Your task to perform on an android device: turn on translation in the chrome app Image 0: 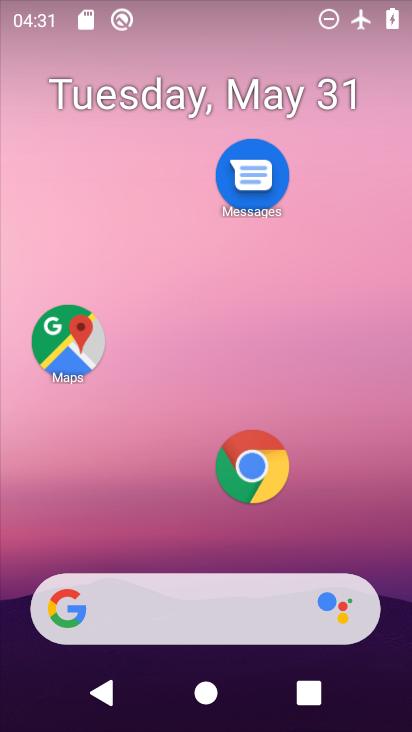
Step 0: click (248, 464)
Your task to perform on an android device: turn on translation in the chrome app Image 1: 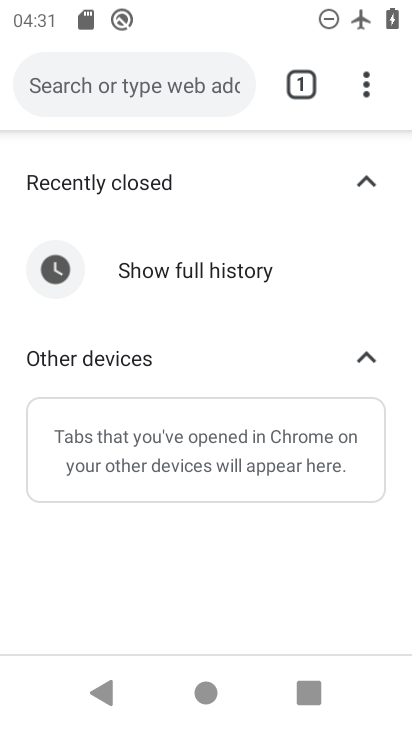
Step 1: drag from (362, 77) to (126, 493)
Your task to perform on an android device: turn on translation in the chrome app Image 2: 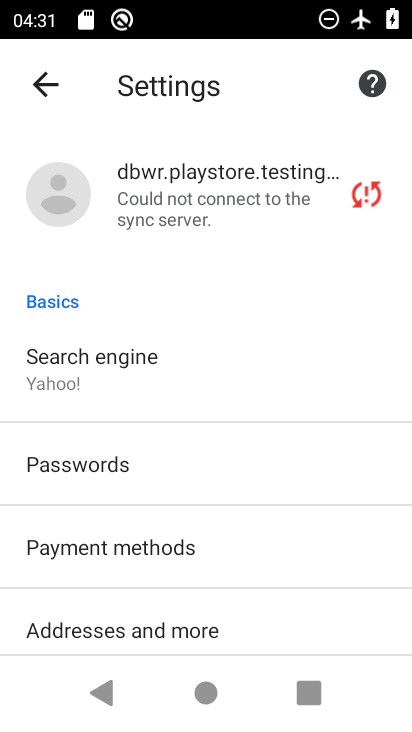
Step 2: drag from (149, 649) to (165, 171)
Your task to perform on an android device: turn on translation in the chrome app Image 3: 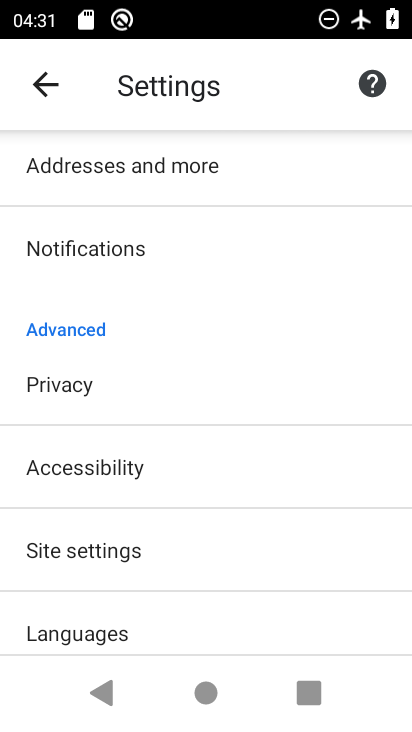
Step 3: click (177, 640)
Your task to perform on an android device: turn on translation in the chrome app Image 4: 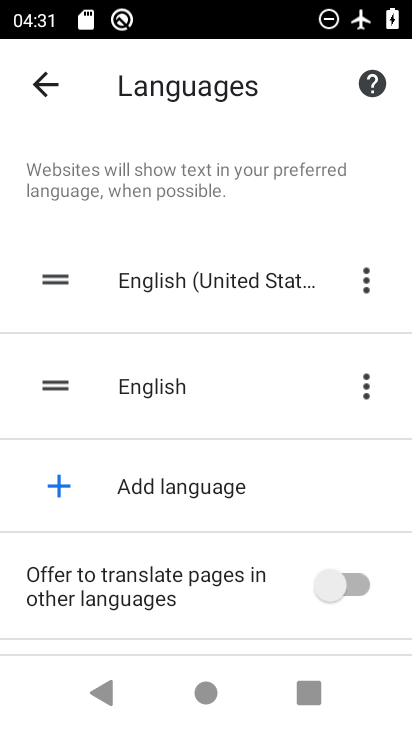
Step 4: click (332, 584)
Your task to perform on an android device: turn on translation in the chrome app Image 5: 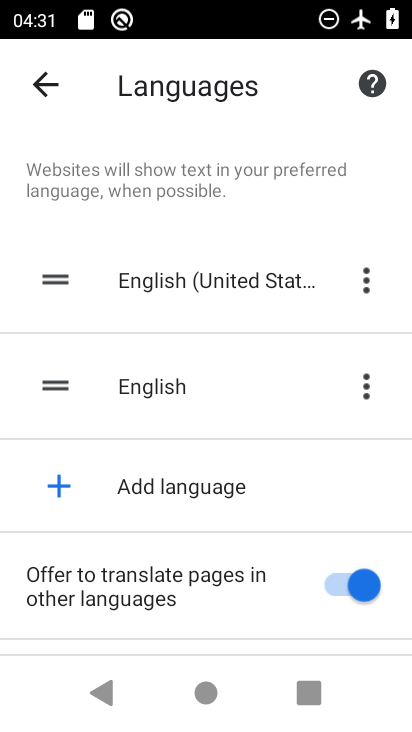
Step 5: task complete